Your task to perform on an android device: Search for duracell triple a on costco.com, select the first entry, and add it to the cart. Image 0: 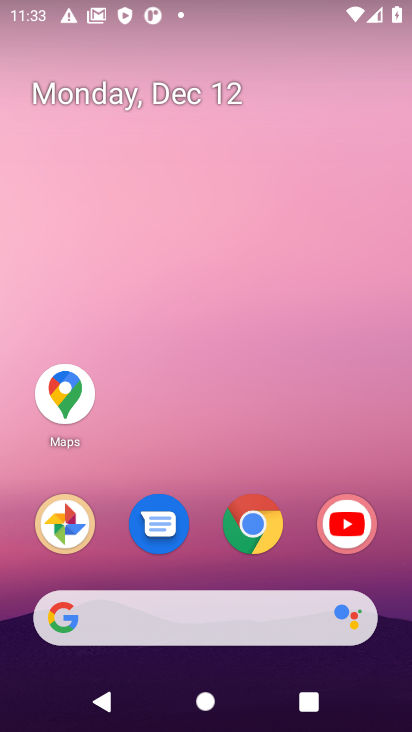
Step 0: click (260, 526)
Your task to perform on an android device: Search for duracell triple a on costco.com, select the first entry, and add it to the cart. Image 1: 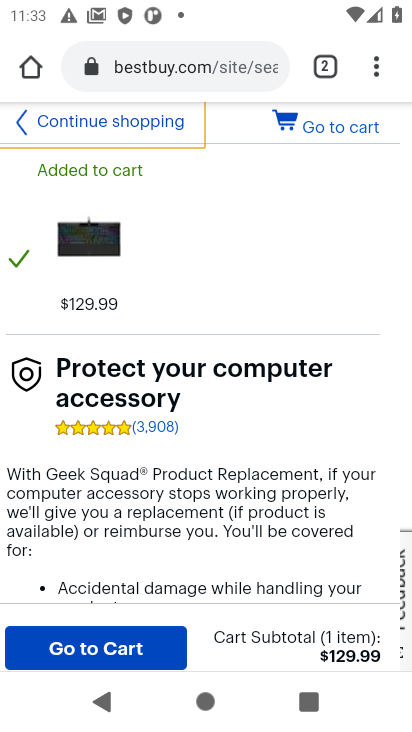
Step 1: click (147, 72)
Your task to perform on an android device: Search for duracell triple a on costco.com, select the first entry, and add it to the cart. Image 2: 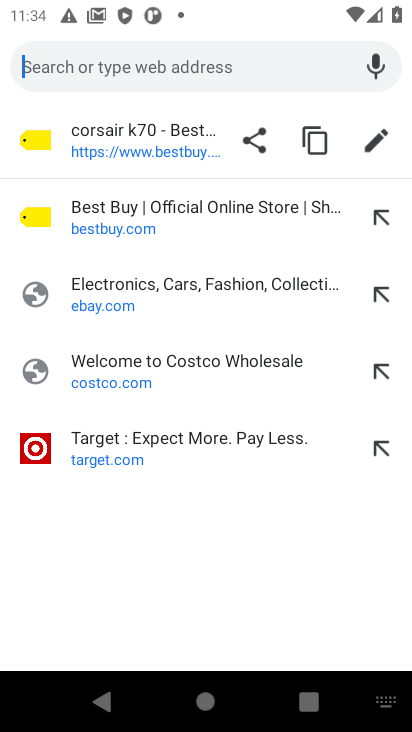
Step 2: click (85, 389)
Your task to perform on an android device: Search for duracell triple a on costco.com, select the first entry, and add it to the cart. Image 3: 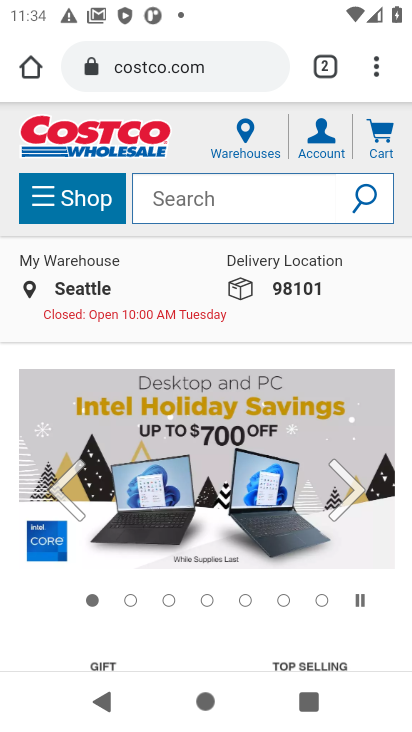
Step 3: click (169, 204)
Your task to perform on an android device: Search for duracell triple a on costco.com, select the first entry, and add it to the cart. Image 4: 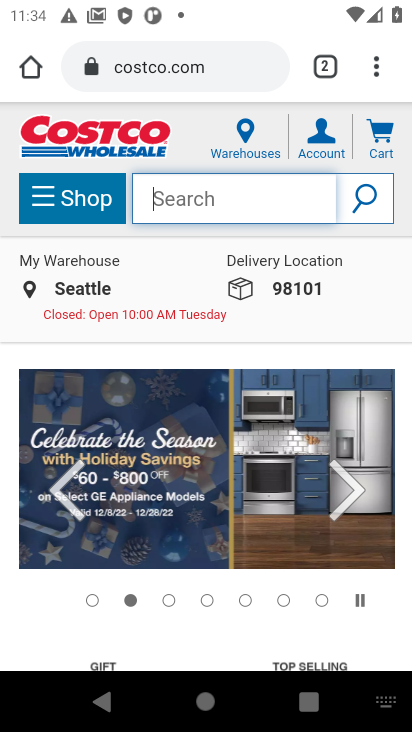
Step 4: type "duracell triple a"
Your task to perform on an android device: Search for duracell triple a on costco.com, select the first entry, and add it to the cart. Image 5: 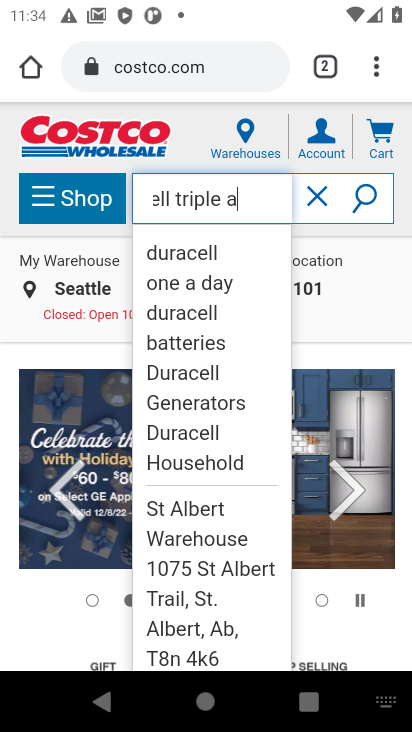
Step 5: click (362, 196)
Your task to perform on an android device: Search for duracell triple a on costco.com, select the first entry, and add it to the cart. Image 6: 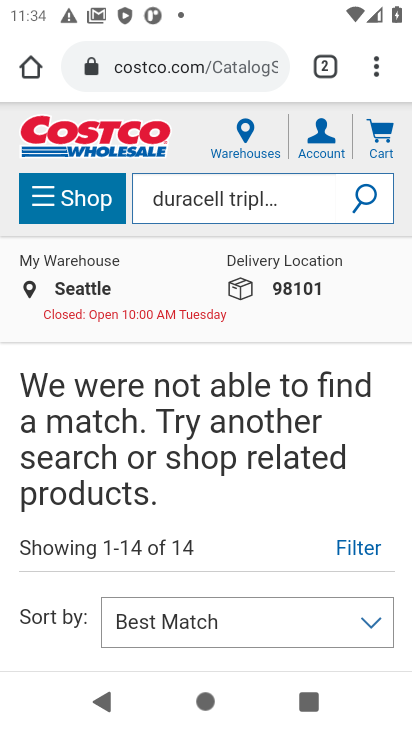
Step 6: task complete